Your task to perform on an android device: change the clock style Image 0: 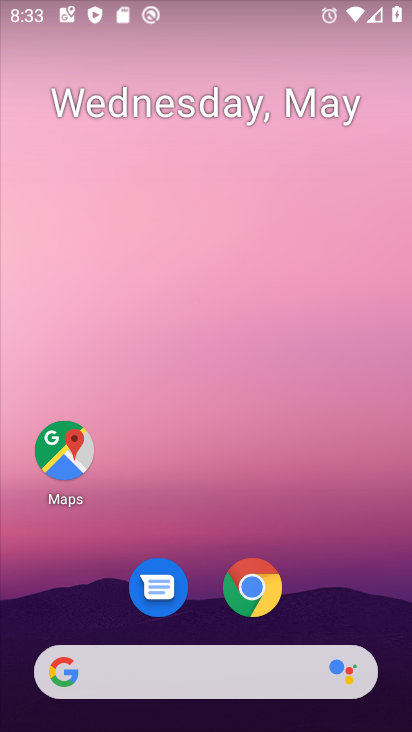
Step 0: drag from (198, 606) to (262, 18)
Your task to perform on an android device: change the clock style Image 1: 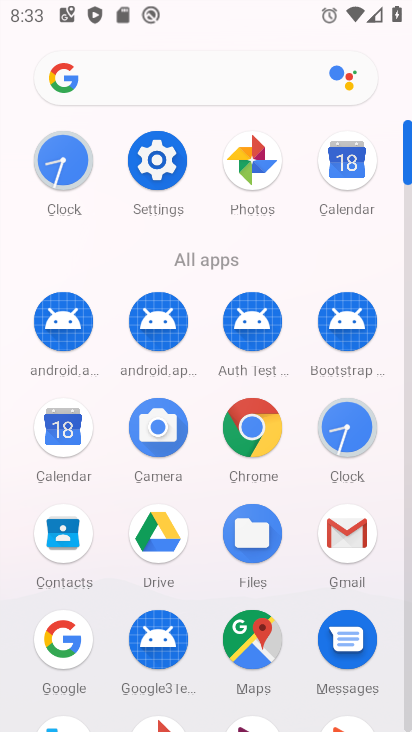
Step 1: click (364, 429)
Your task to perform on an android device: change the clock style Image 2: 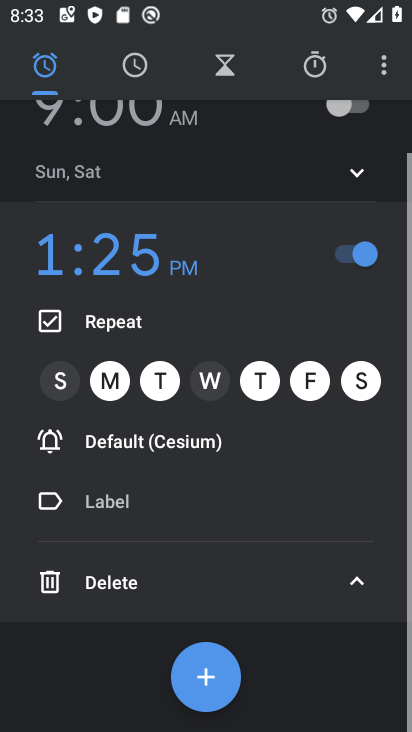
Step 2: click (382, 70)
Your task to perform on an android device: change the clock style Image 3: 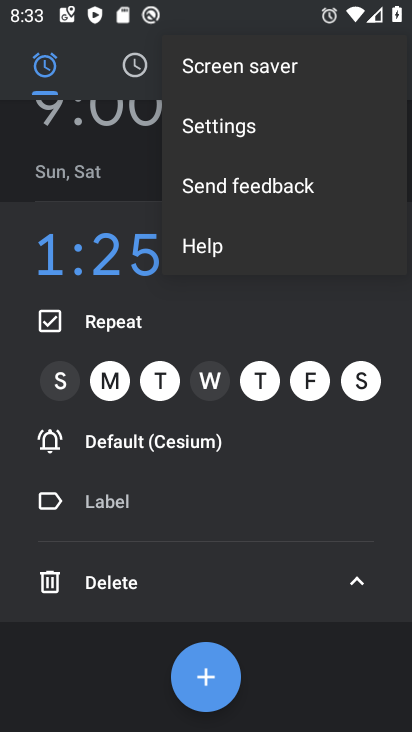
Step 3: click (248, 137)
Your task to perform on an android device: change the clock style Image 4: 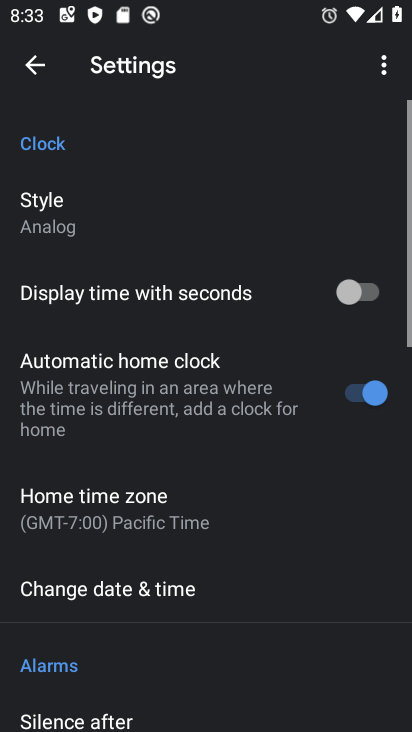
Step 4: click (40, 231)
Your task to perform on an android device: change the clock style Image 5: 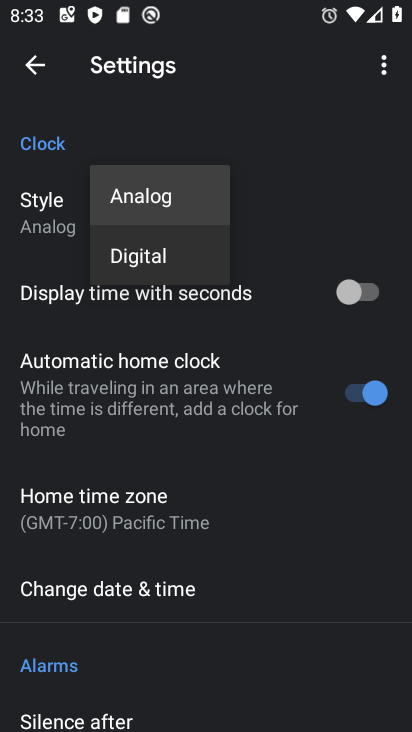
Step 5: click (139, 268)
Your task to perform on an android device: change the clock style Image 6: 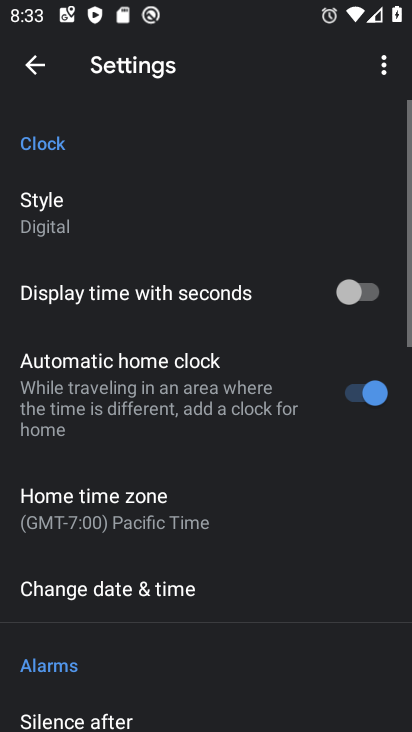
Step 6: task complete